Your task to perform on an android device: show emergency info Image 0: 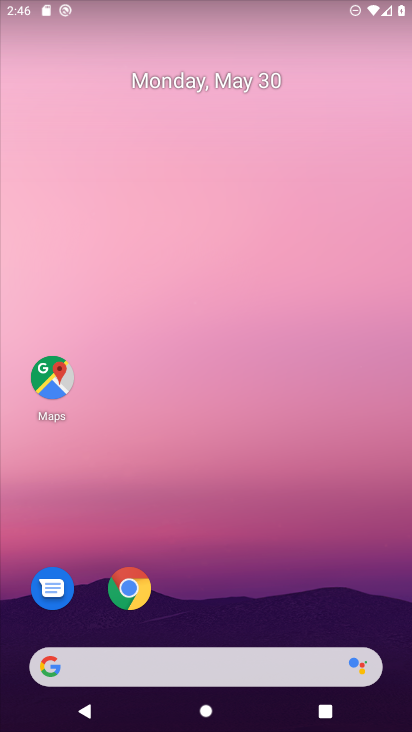
Step 0: drag from (262, 579) to (290, 211)
Your task to perform on an android device: show emergency info Image 1: 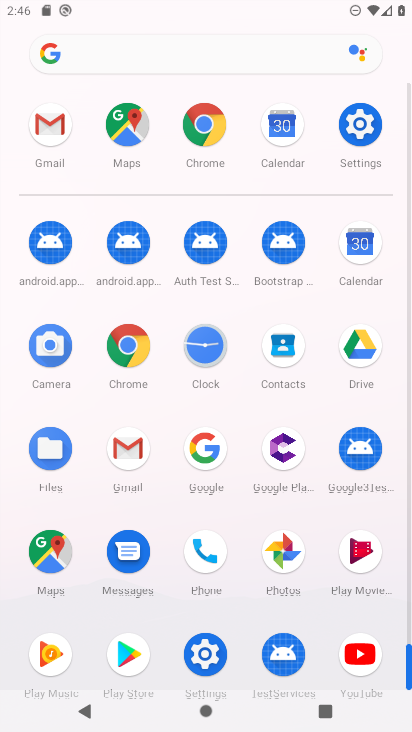
Step 1: click (362, 117)
Your task to perform on an android device: show emergency info Image 2: 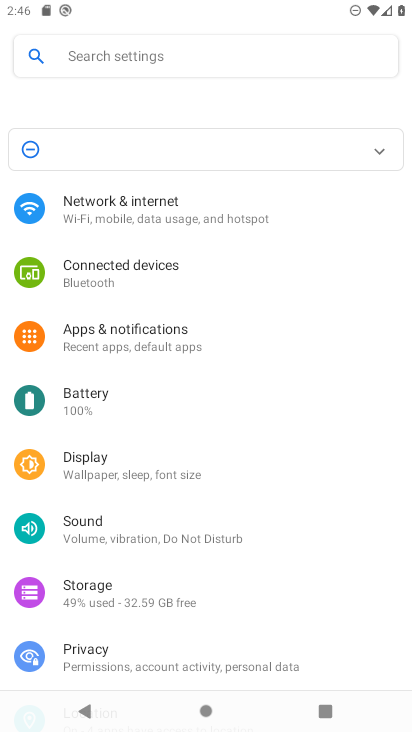
Step 2: drag from (151, 596) to (189, 122)
Your task to perform on an android device: show emergency info Image 3: 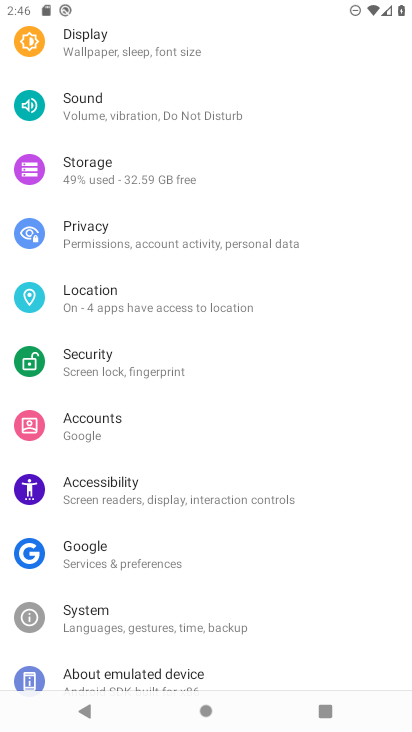
Step 3: drag from (146, 568) to (199, 216)
Your task to perform on an android device: show emergency info Image 4: 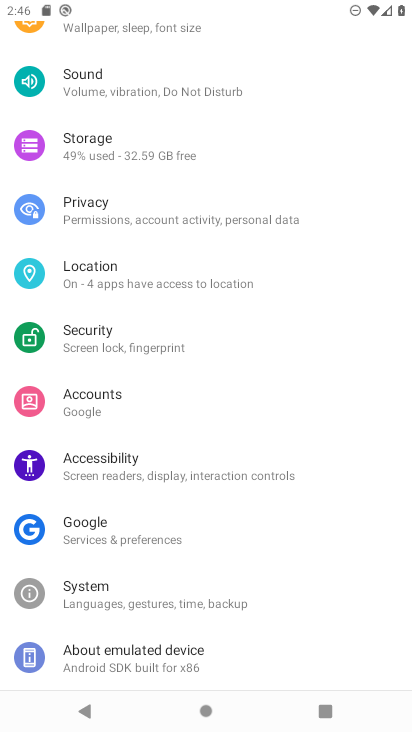
Step 4: click (119, 657)
Your task to perform on an android device: show emergency info Image 5: 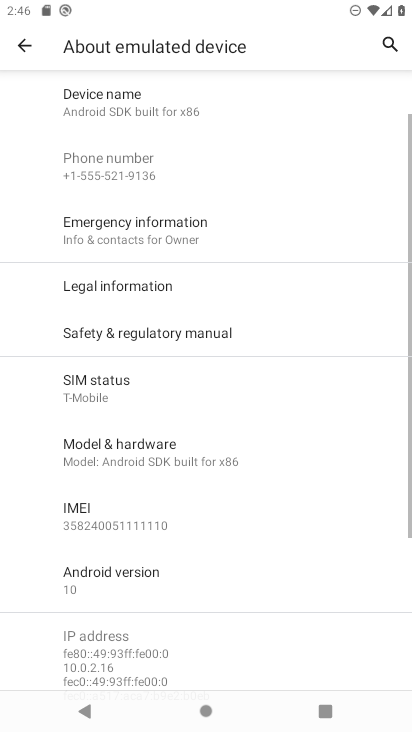
Step 5: drag from (131, 632) to (168, 382)
Your task to perform on an android device: show emergency info Image 6: 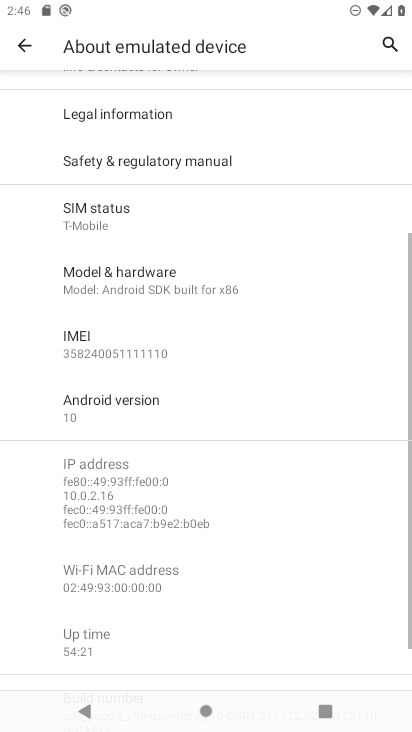
Step 6: drag from (142, 142) to (138, 410)
Your task to perform on an android device: show emergency info Image 7: 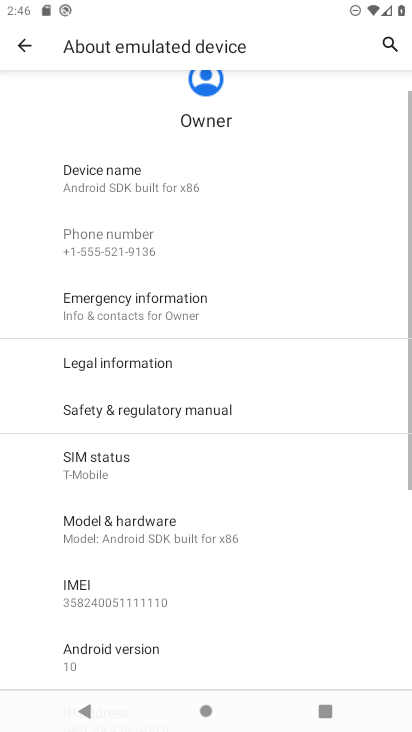
Step 7: click (148, 292)
Your task to perform on an android device: show emergency info Image 8: 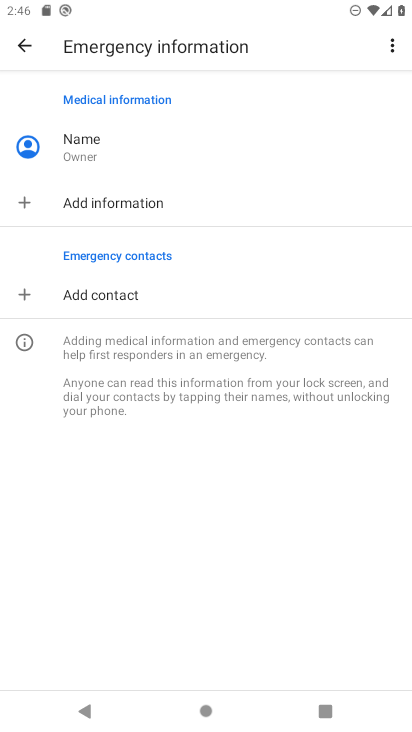
Step 8: task complete